Your task to perform on an android device: Open display settings Image 0: 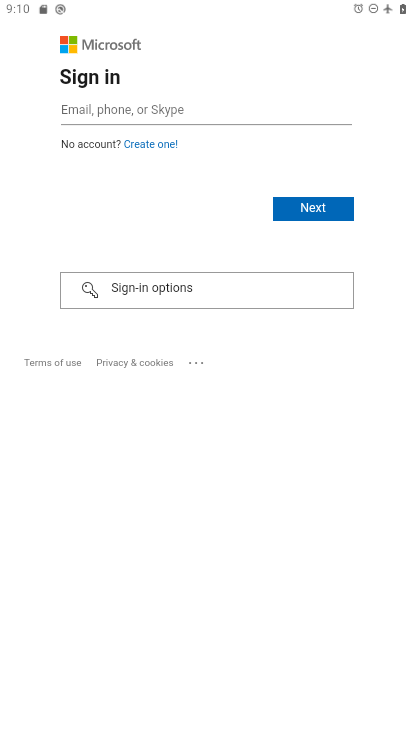
Step 0: press home button
Your task to perform on an android device: Open display settings Image 1: 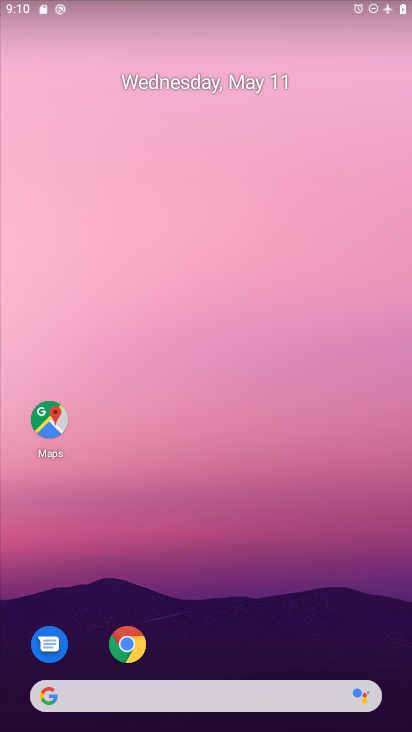
Step 1: drag from (231, 620) to (30, 6)
Your task to perform on an android device: Open display settings Image 2: 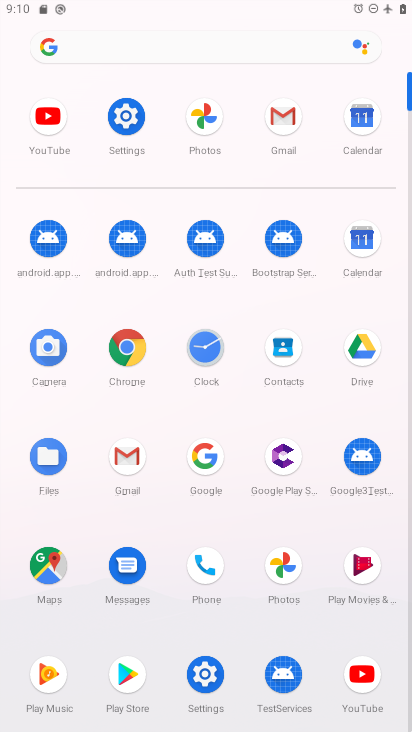
Step 2: click (138, 119)
Your task to perform on an android device: Open display settings Image 3: 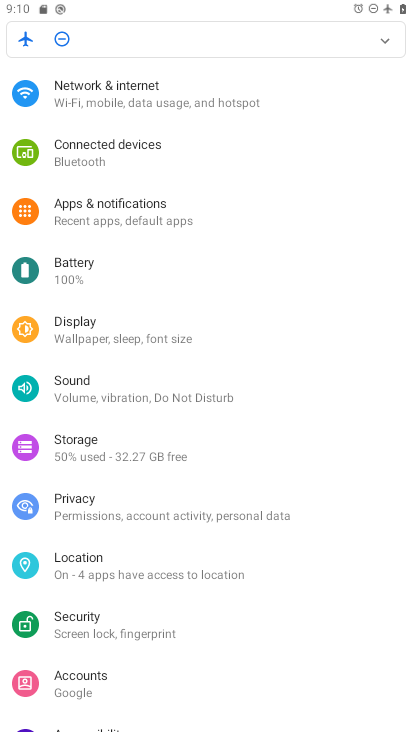
Step 3: click (62, 326)
Your task to perform on an android device: Open display settings Image 4: 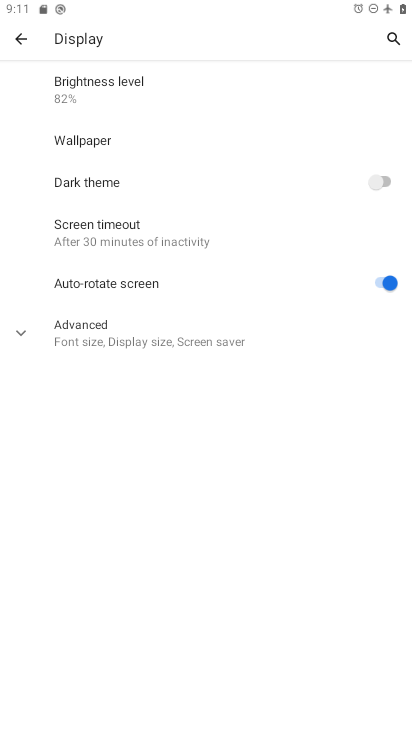
Step 4: task complete